Your task to perform on an android device: change the clock display to analog Image 0: 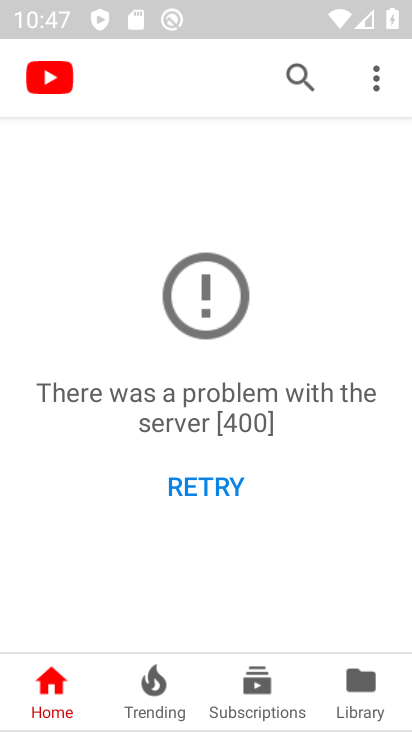
Step 0: press home button
Your task to perform on an android device: change the clock display to analog Image 1: 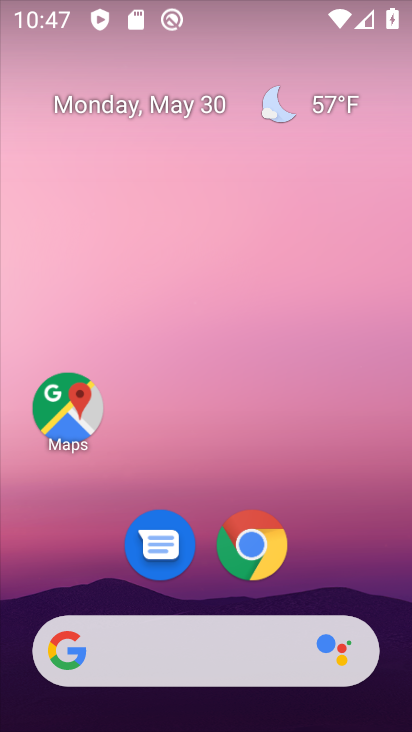
Step 1: drag from (207, 692) to (229, 175)
Your task to perform on an android device: change the clock display to analog Image 2: 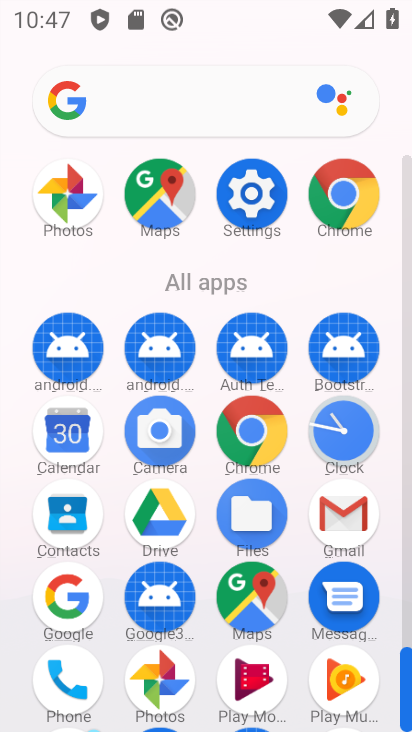
Step 2: click (359, 421)
Your task to perform on an android device: change the clock display to analog Image 3: 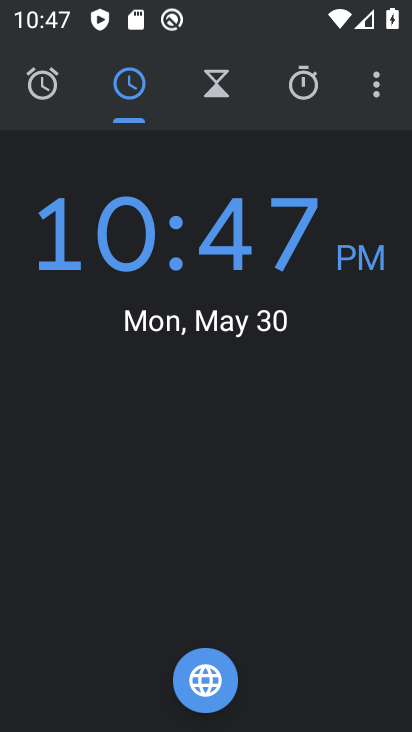
Step 3: click (375, 85)
Your task to perform on an android device: change the clock display to analog Image 4: 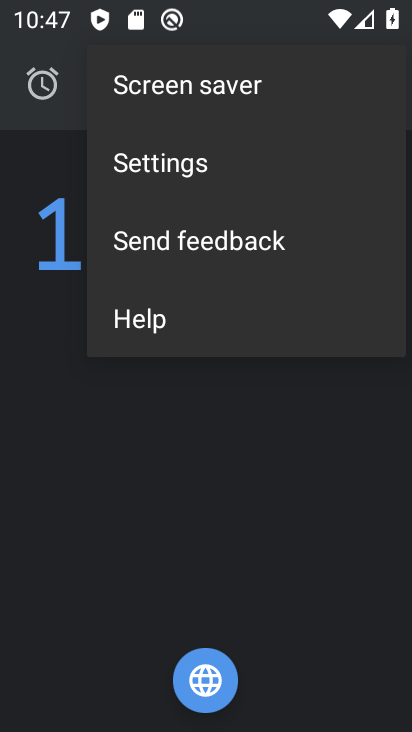
Step 4: click (186, 168)
Your task to perform on an android device: change the clock display to analog Image 5: 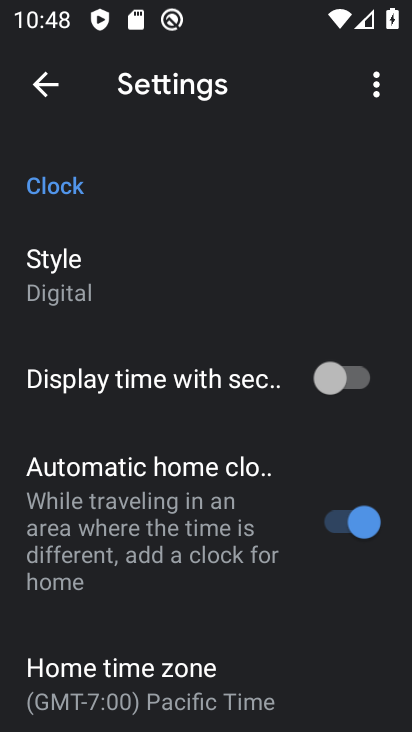
Step 5: click (95, 300)
Your task to perform on an android device: change the clock display to analog Image 6: 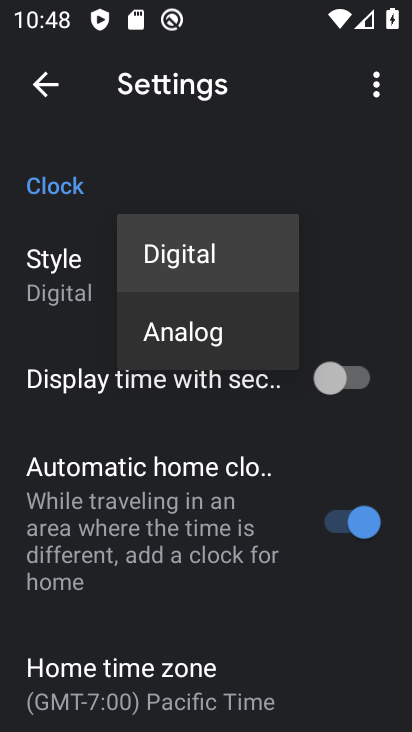
Step 6: click (174, 333)
Your task to perform on an android device: change the clock display to analog Image 7: 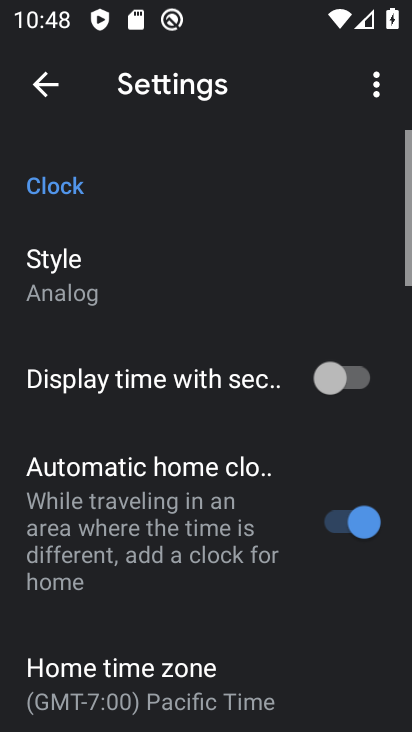
Step 7: task complete